Your task to perform on an android device: Open location settings Image 0: 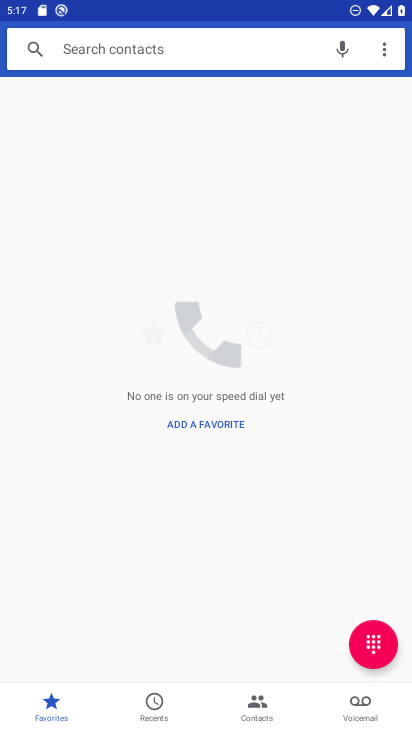
Step 0: press back button
Your task to perform on an android device: Open location settings Image 1: 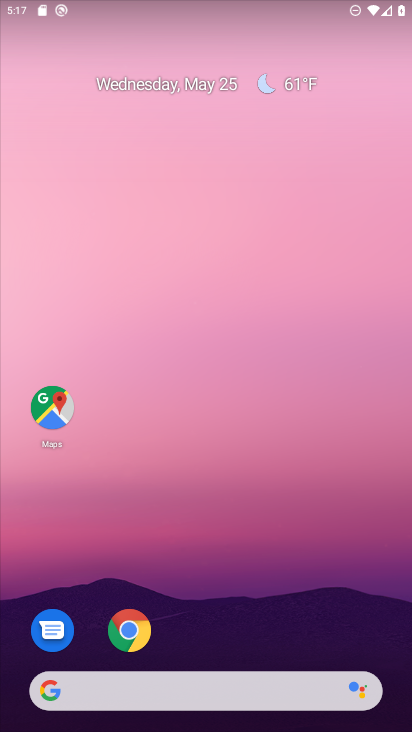
Step 1: drag from (238, 472) to (270, 0)
Your task to perform on an android device: Open location settings Image 2: 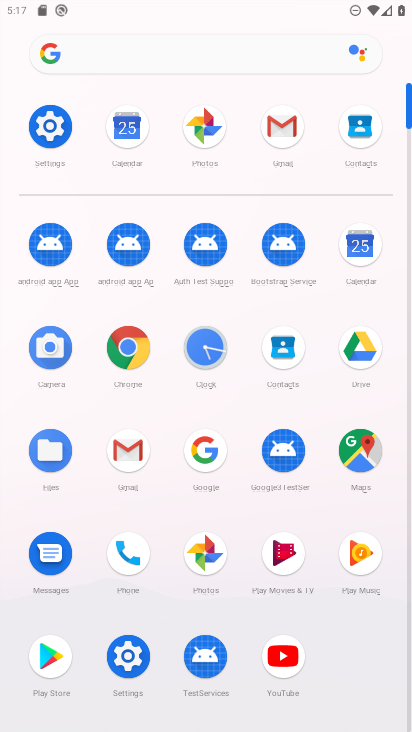
Step 2: click (50, 128)
Your task to perform on an android device: Open location settings Image 3: 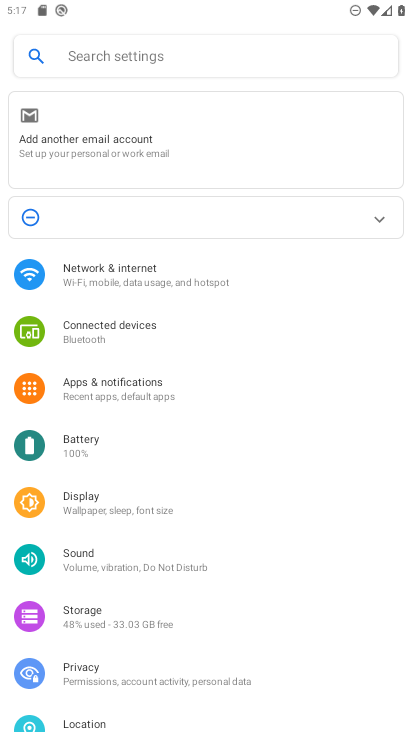
Step 3: click (82, 727)
Your task to perform on an android device: Open location settings Image 4: 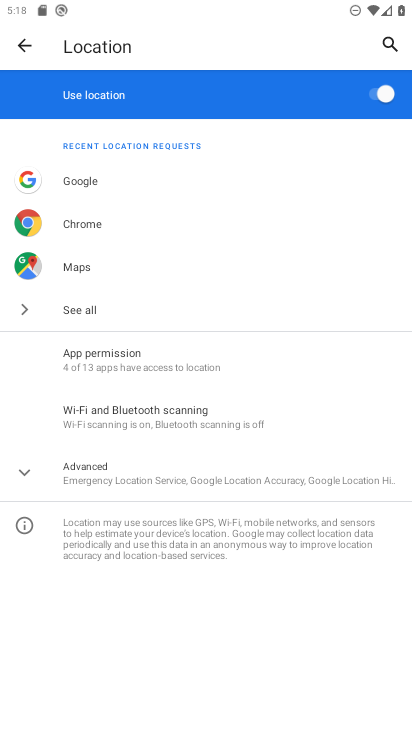
Step 4: task complete